Your task to perform on an android device: turn off priority inbox in the gmail app Image 0: 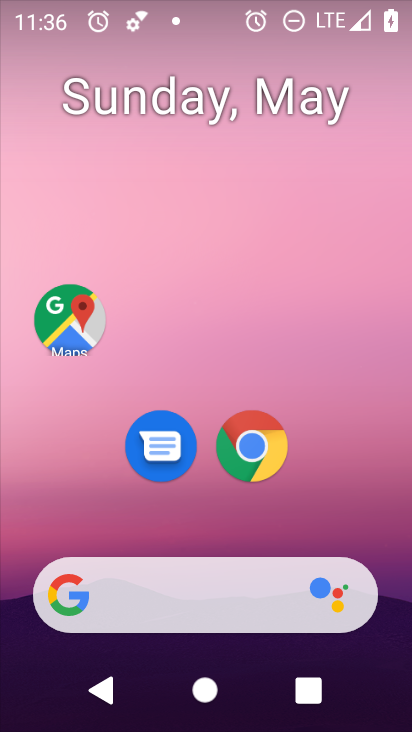
Step 0: drag from (351, 418) to (260, 4)
Your task to perform on an android device: turn off priority inbox in the gmail app Image 1: 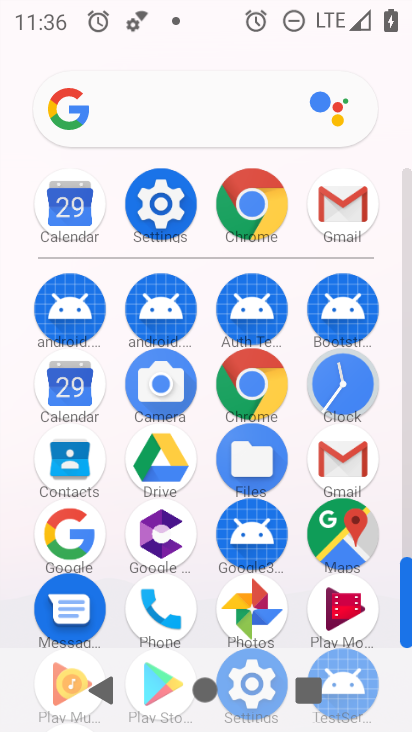
Step 1: drag from (28, 556) to (33, 268)
Your task to perform on an android device: turn off priority inbox in the gmail app Image 2: 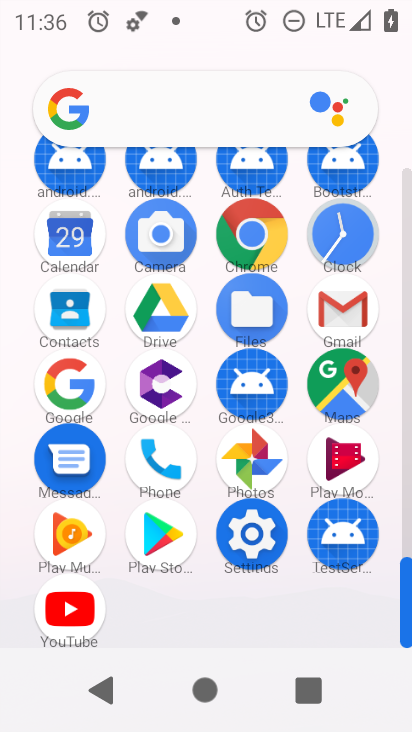
Step 2: click (338, 300)
Your task to perform on an android device: turn off priority inbox in the gmail app Image 3: 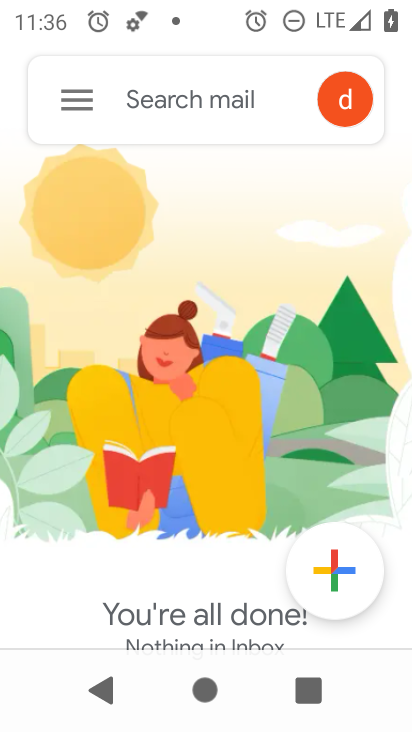
Step 3: click (73, 112)
Your task to perform on an android device: turn off priority inbox in the gmail app Image 4: 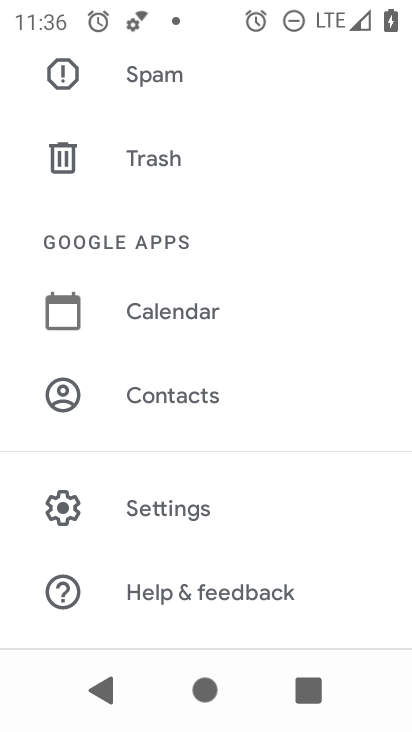
Step 4: drag from (284, 534) to (284, 105)
Your task to perform on an android device: turn off priority inbox in the gmail app Image 5: 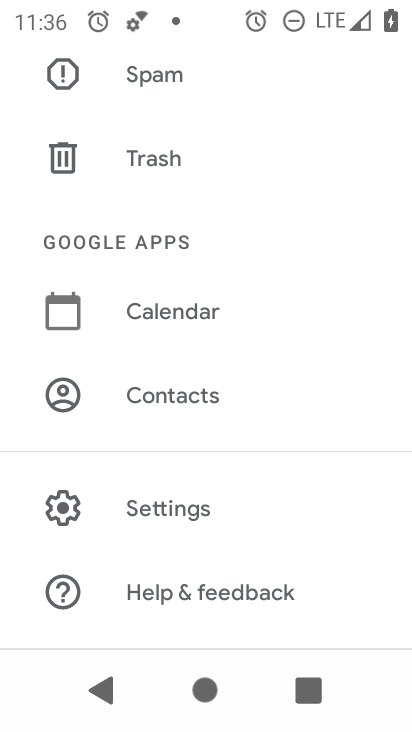
Step 5: click (190, 514)
Your task to perform on an android device: turn off priority inbox in the gmail app Image 6: 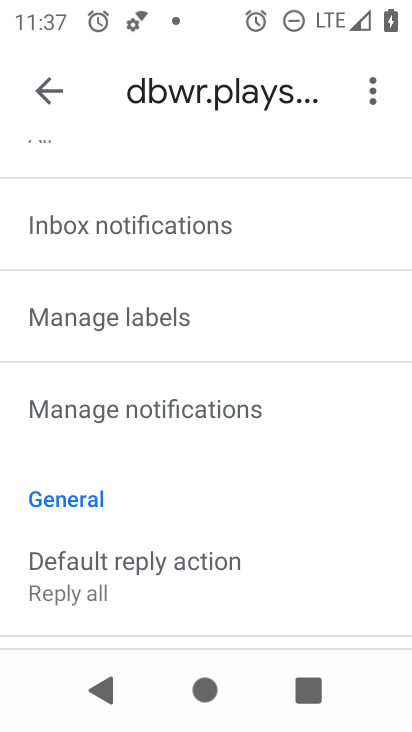
Step 6: drag from (265, 196) to (266, 590)
Your task to perform on an android device: turn off priority inbox in the gmail app Image 7: 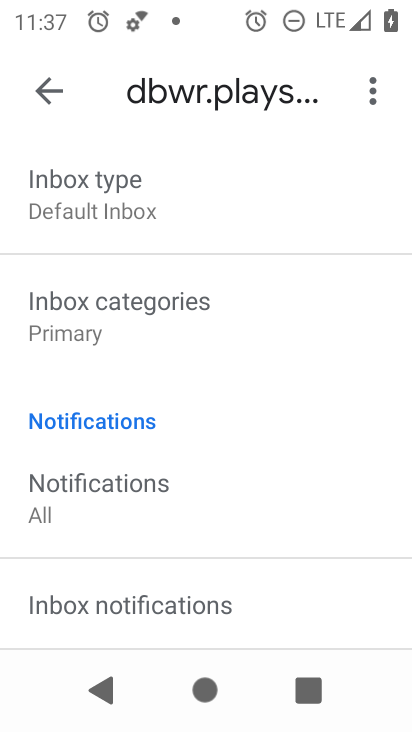
Step 7: click (182, 312)
Your task to perform on an android device: turn off priority inbox in the gmail app Image 8: 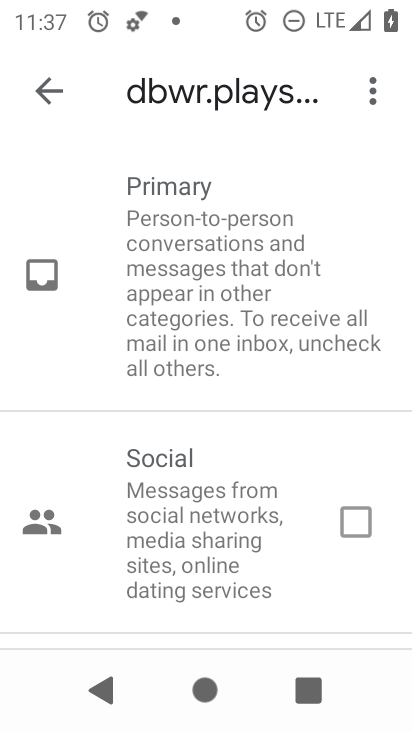
Step 8: click (42, 89)
Your task to perform on an android device: turn off priority inbox in the gmail app Image 9: 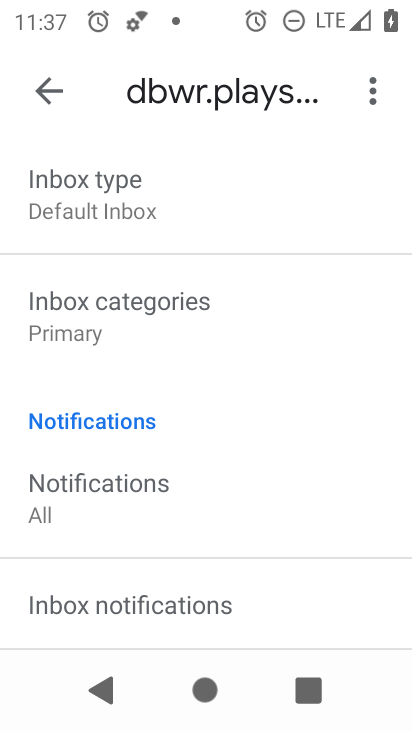
Step 9: click (170, 300)
Your task to perform on an android device: turn off priority inbox in the gmail app Image 10: 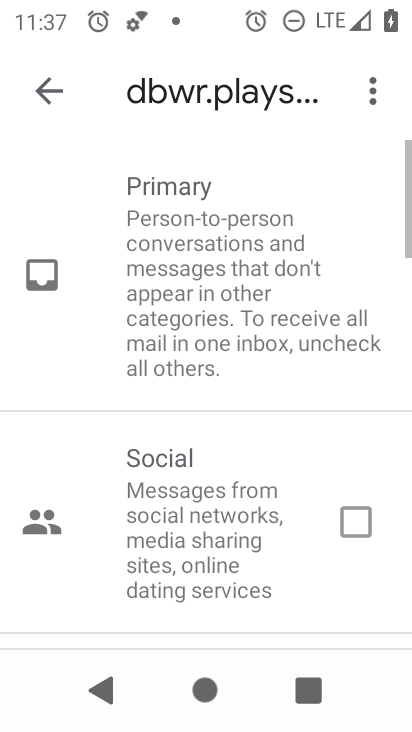
Step 10: drag from (245, 542) to (242, 124)
Your task to perform on an android device: turn off priority inbox in the gmail app Image 11: 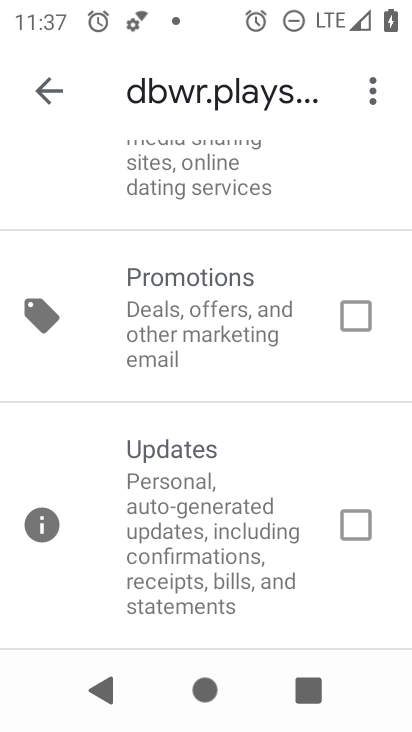
Step 11: drag from (234, 492) to (238, 130)
Your task to perform on an android device: turn off priority inbox in the gmail app Image 12: 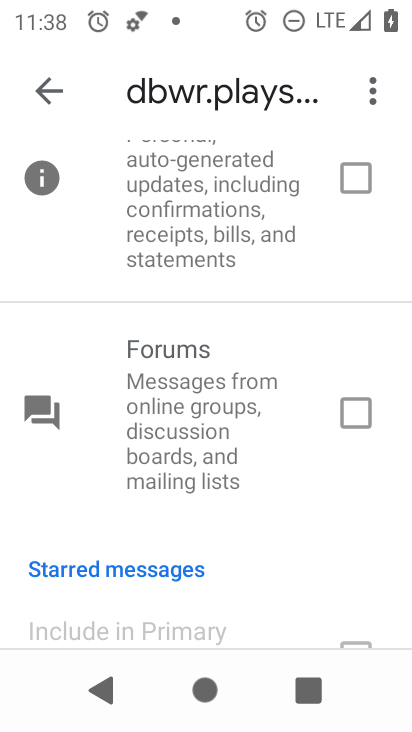
Step 12: drag from (203, 574) to (226, 211)
Your task to perform on an android device: turn off priority inbox in the gmail app Image 13: 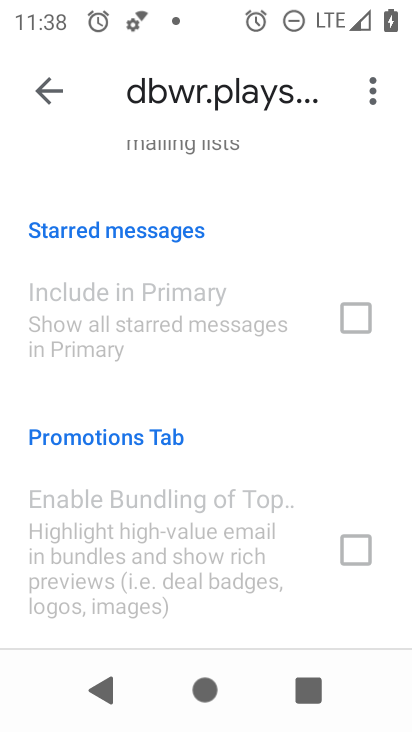
Step 13: drag from (291, 591) to (266, 123)
Your task to perform on an android device: turn off priority inbox in the gmail app Image 14: 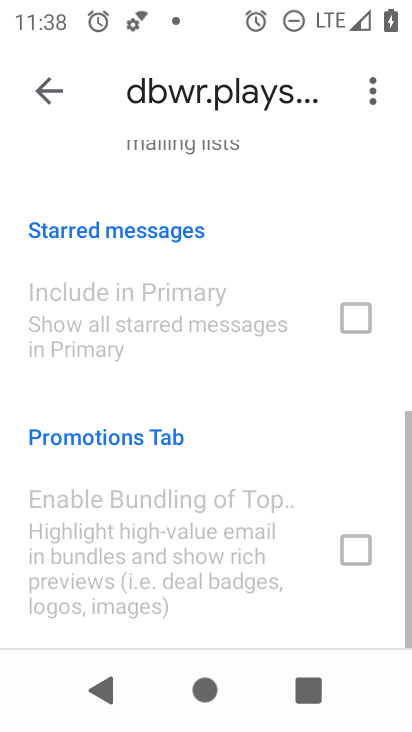
Step 14: drag from (233, 278) to (233, 625)
Your task to perform on an android device: turn off priority inbox in the gmail app Image 15: 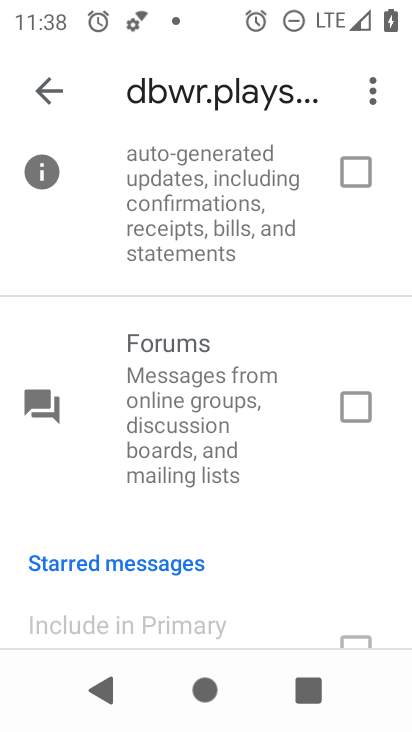
Step 15: drag from (281, 216) to (254, 621)
Your task to perform on an android device: turn off priority inbox in the gmail app Image 16: 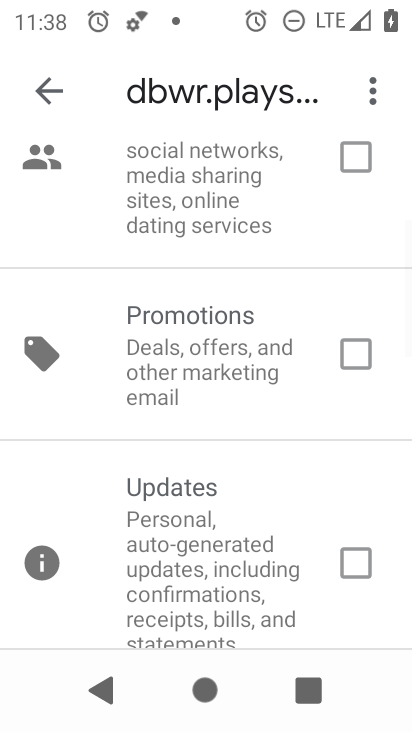
Step 16: drag from (272, 233) to (243, 620)
Your task to perform on an android device: turn off priority inbox in the gmail app Image 17: 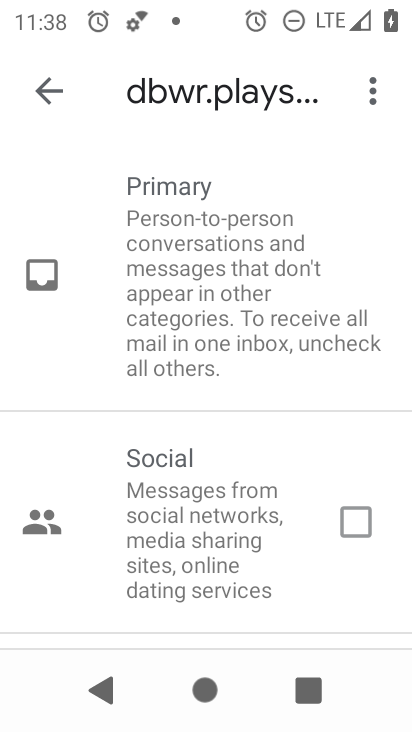
Step 17: drag from (257, 222) to (219, 603)
Your task to perform on an android device: turn off priority inbox in the gmail app Image 18: 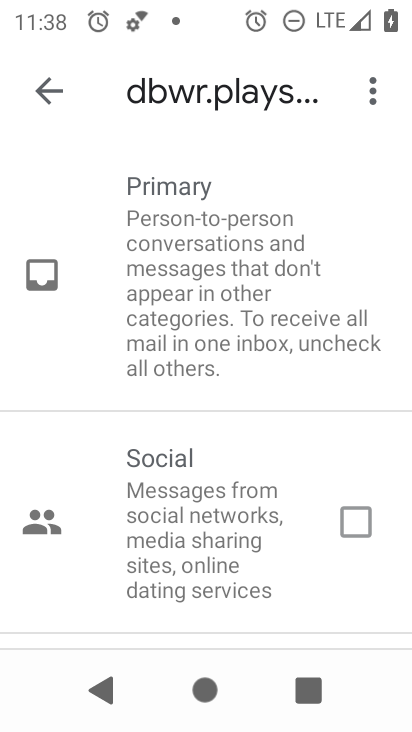
Step 18: drag from (206, 520) to (212, 129)
Your task to perform on an android device: turn off priority inbox in the gmail app Image 19: 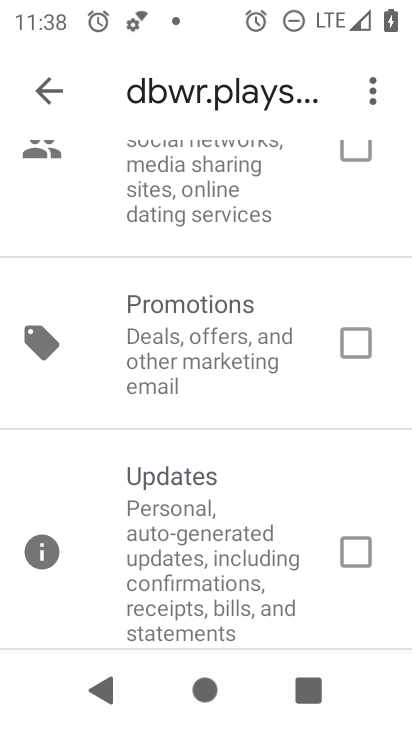
Step 19: drag from (218, 491) to (234, 147)
Your task to perform on an android device: turn off priority inbox in the gmail app Image 20: 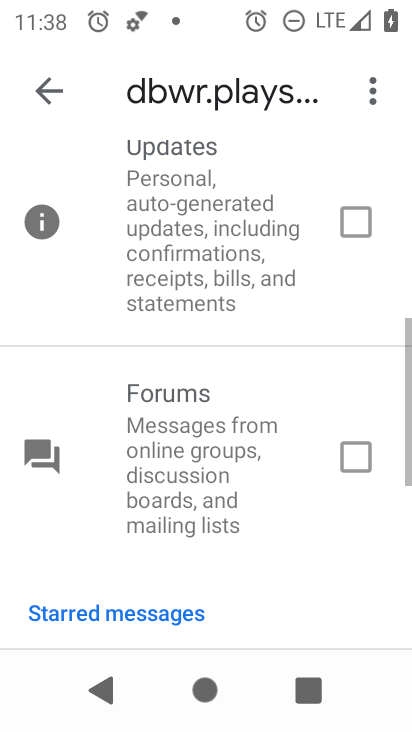
Step 20: drag from (252, 546) to (259, 176)
Your task to perform on an android device: turn off priority inbox in the gmail app Image 21: 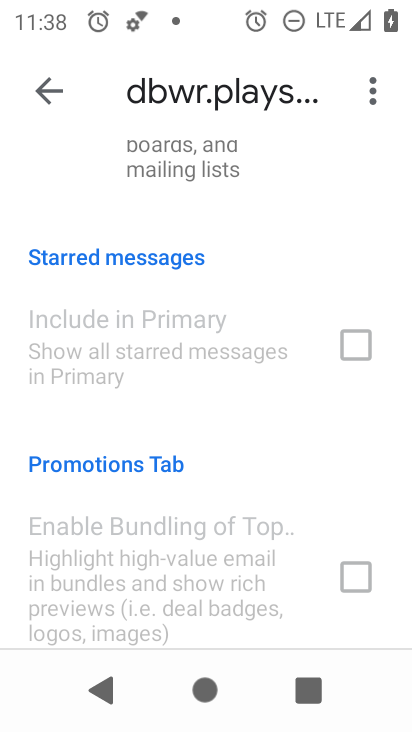
Step 21: drag from (251, 260) to (251, 562)
Your task to perform on an android device: turn off priority inbox in the gmail app Image 22: 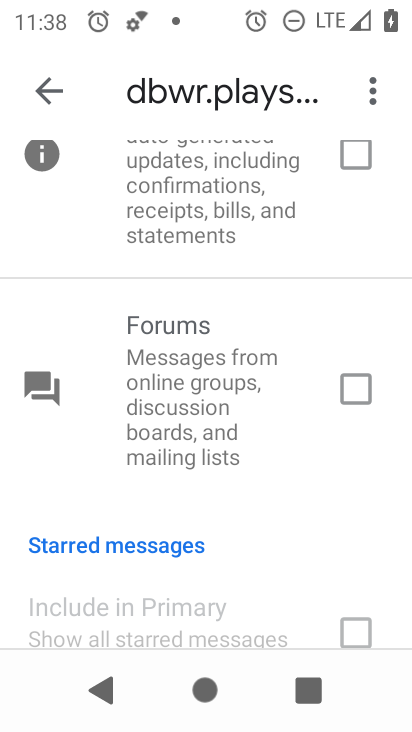
Step 22: drag from (263, 490) to (263, 184)
Your task to perform on an android device: turn off priority inbox in the gmail app Image 23: 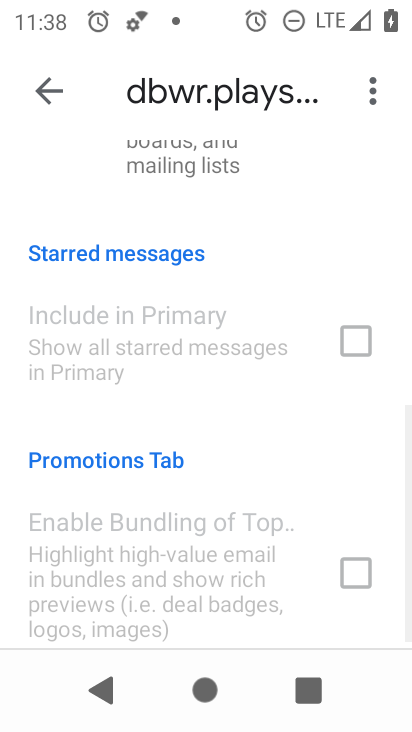
Step 23: drag from (248, 530) to (247, 133)
Your task to perform on an android device: turn off priority inbox in the gmail app Image 24: 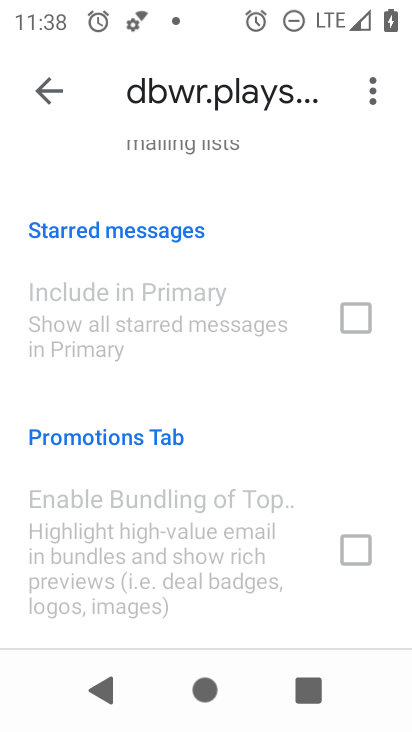
Step 24: drag from (253, 502) to (253, 161)
Your task to perform on an android device: turn off priority inbox in the gmail app Image 25: 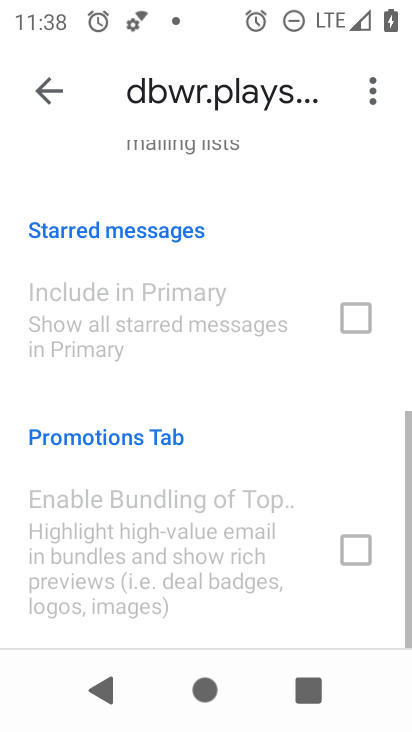
Step 25: drag from (279, 211) to (283, 610)
Your task to perform on an android device: turn off priority inbox in the gmail app Image 26: 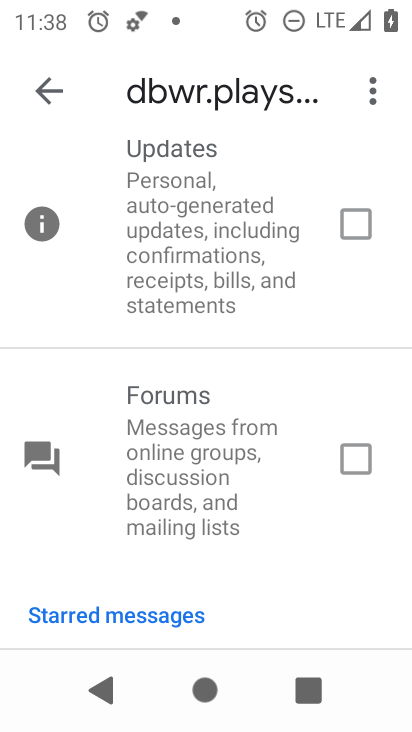
Step 26: drag from (269, 271) to (258, 568)
Your task to perform on an android device: turn off priority inbox in the gmail app Image 27: 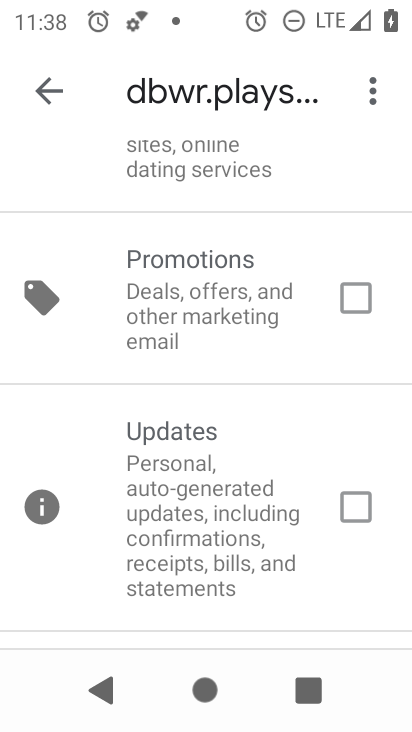
Step 27: drag from (266, 258) to (248, 623)
Your task to perform on an android device: turn off priority inbox in the gmail app Image 28: 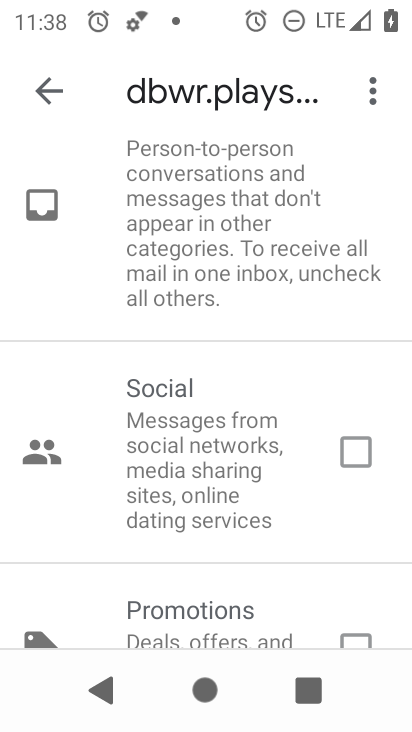
Step 28: drag from (254, 264) to (226, 575)
Your task to perform on an android device: turn off priority inbox in the gmail app Image 29: 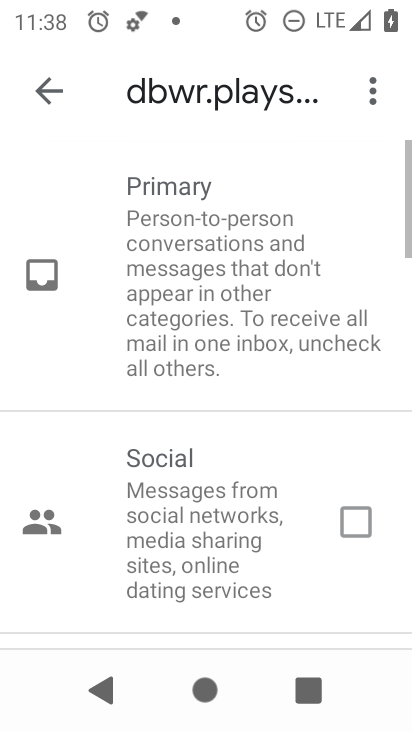
Step 29: drag from (230, 410) to (244, 165)
Your task to perform on an android device: turn off priority inbox in the gmail app Image 30: 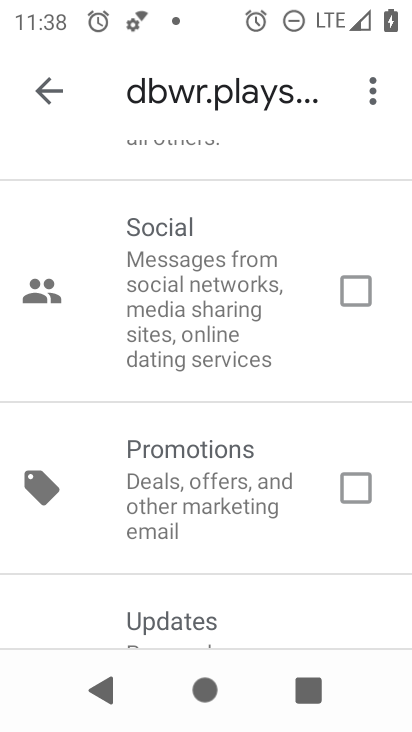
Step 30: drag from (158, 466) to (207, 206)
Your task to perform on an android device: turn off priority inbox in the gmail app Image 31: 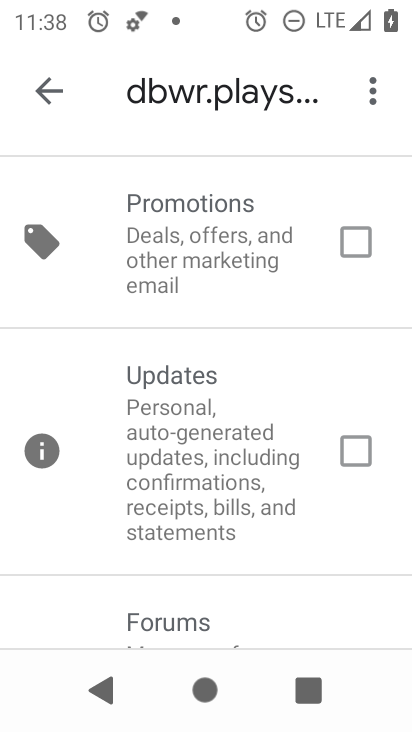
Step 31: drag from (230, 489) to (243, 166)
Your task to perform on an android device: turn off priority inbox in the gmail app Image 32: 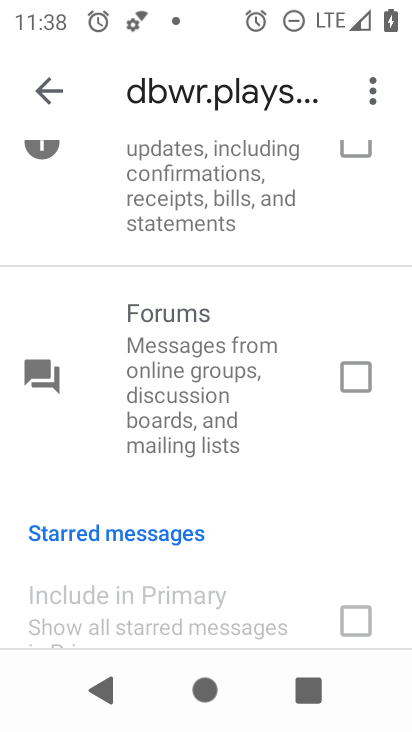
Step 32: drag from (282, 516) to (270, 149)
Your task to perform on an android device: turn off priority inbox in the gmail app Image 33: 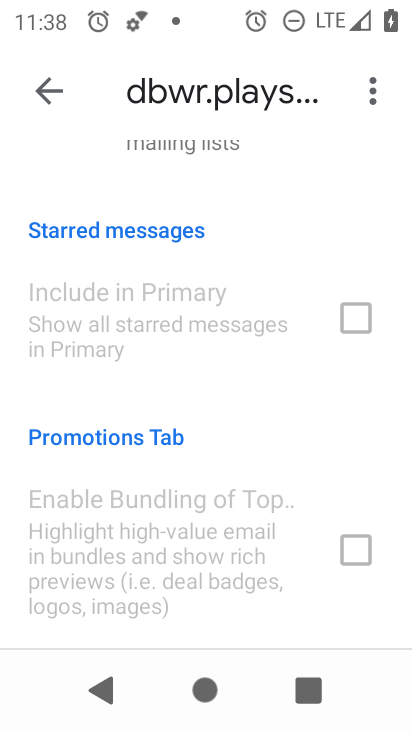
Step 33: drag from (251, 498) to (277, 256)
Your task to perform on an android device: turn off priority inbox in the gmail app Image 34: 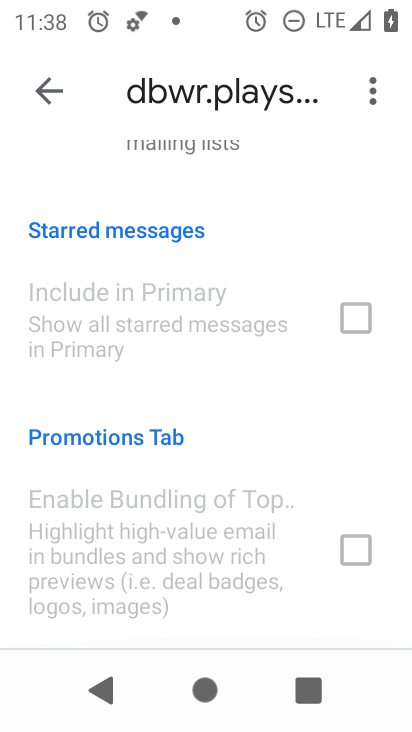
Step 34: drag from (289, 184) to (286, 586)
Your task to perform on an android device: turn off priority inbox in the gmail app Image 35: 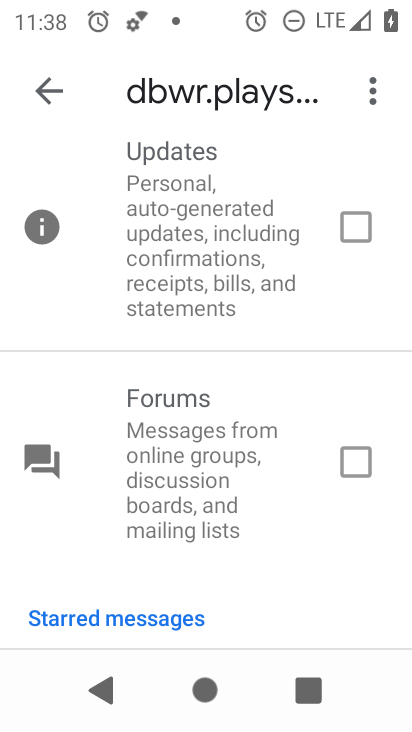
Step 35: drag from (284, 193) to (284, 430)
Your task to perform on an android device: turn off priority inbox in the gmail app Image 36: 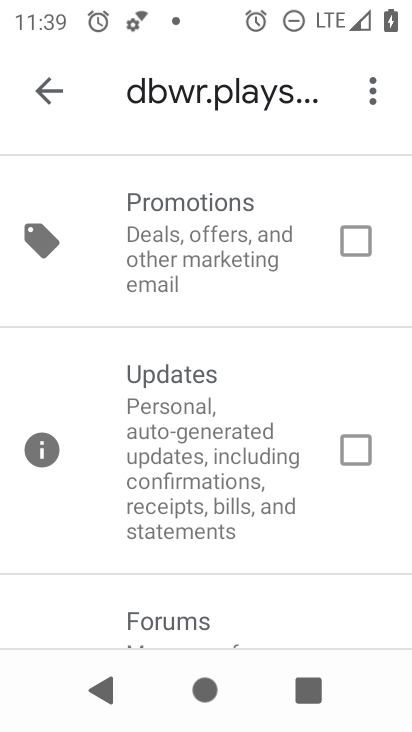
Step 36: drag from (282, 596) to (274, 189)
Your task to perform on an android device: turn off priority inbox in the gmail app Image 37: 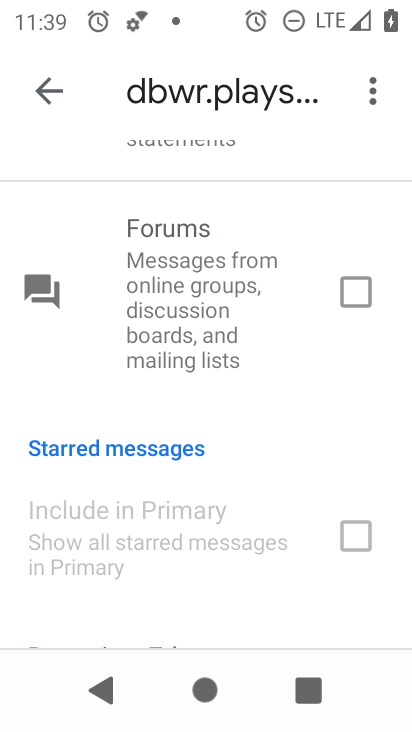
Step 37: drag from (284, 175) to (260, 555)
Your task to perform on an android device: turn off priority inbox in the gmail app Image 38: 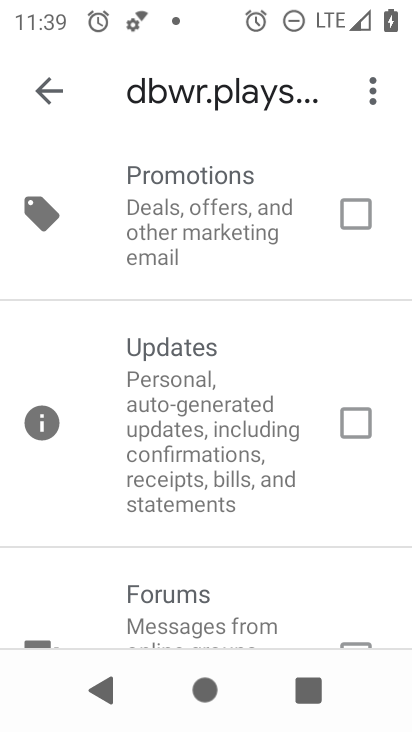
Step 38: drag from (283, 551) to (285, 247)
Your task to perform on an android device: turn off priority inbox in the gmail app Image 39: 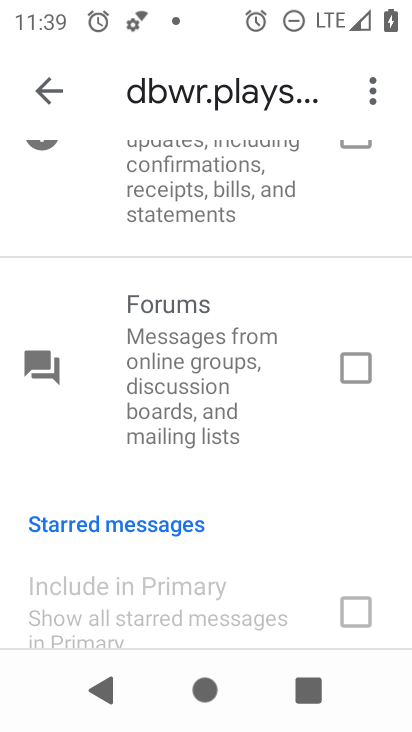
Step 39: drag from (291, 235) to (289, 602)
Your task to perform on an android device: turn off priority inbox in the gmail app Image 40: 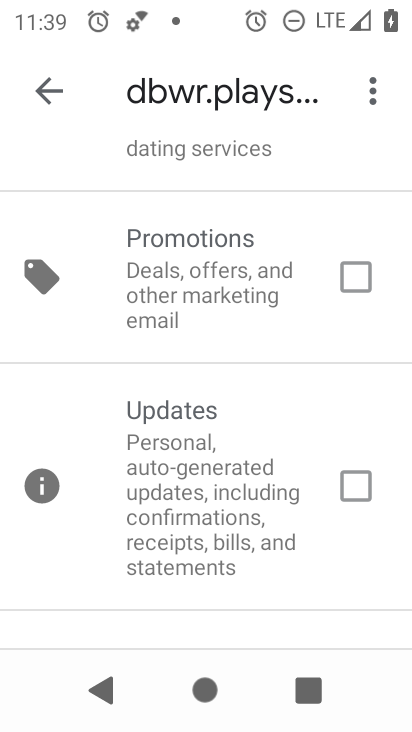
Step 40: drag from (298, 185) to (285, 568)
Your task to perform on an android device: turn off priority inbox in the gmail app Image 41: 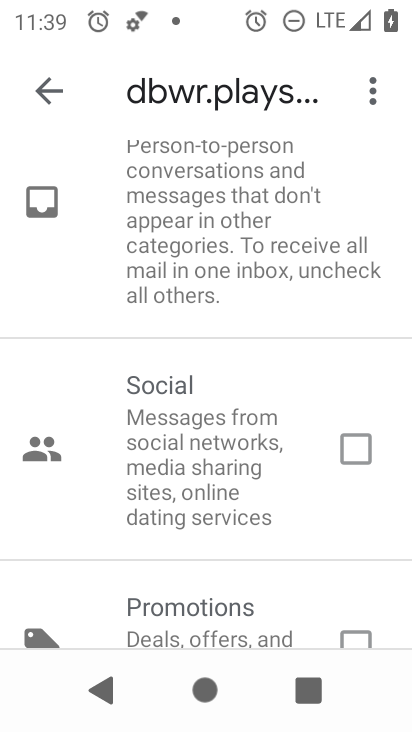
Step 41: drag from (282, 283) to (282, 640)
Your task to perform on an android device: turn off priority inbox in the gmail app Image 42: 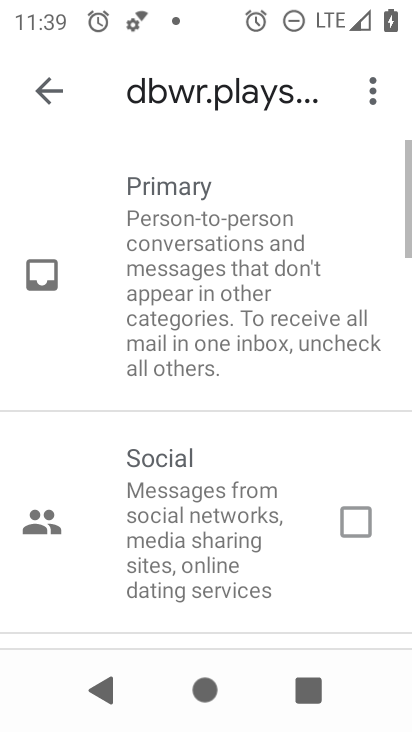
Step 42: drag from (260, 522) to (264, 103)
Your task to perform on an android device: turn off priority inbox in the gmail app Image 43: 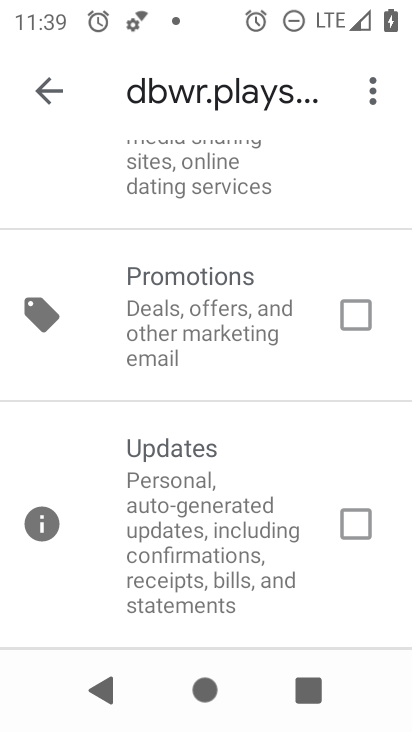
Step 43: drag from (264, 557) to (265, 122)
Your task to perform on an android device: turn off priority inbox in the gmail app Image 44: 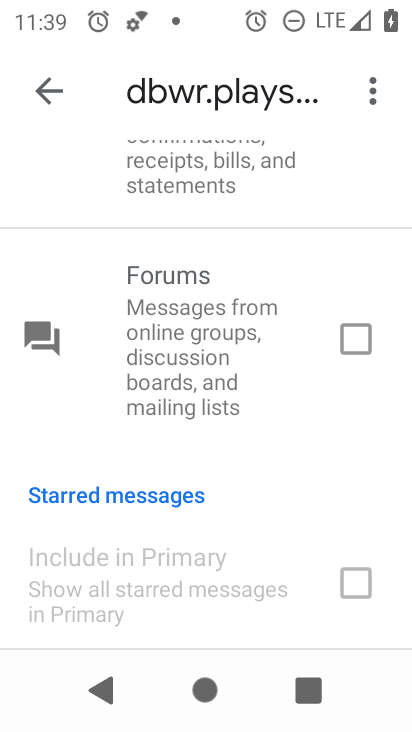
Step 44: drag from (230, 551) to (234, 135)
Your task to perform on an android device: turn off priority inbox in the gmail app Image 45: 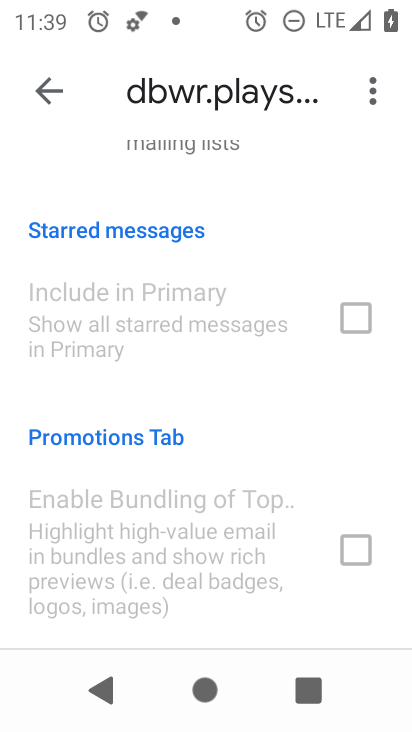
Step 45: click (48, 83)
Your task to perform on an android device: turn off priority inbox in the gmail app Image 46: 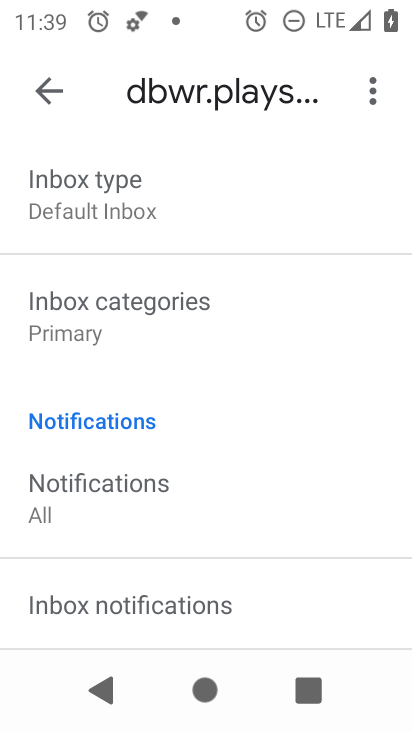
Step 46: drag from (289, 503) to (282, 195)
Your task to perform on an android device: turn off priority inbox in the gmail app Image 47: 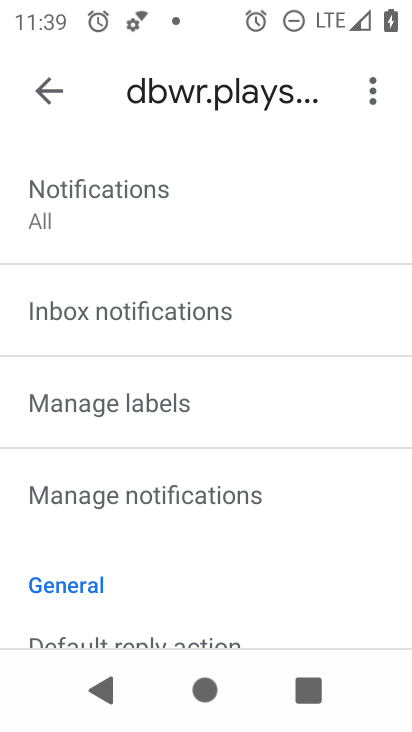
Step 47: click (204, 492)
Your task to perform on an android device: turn off priority inbox in the gmail app Image 48: 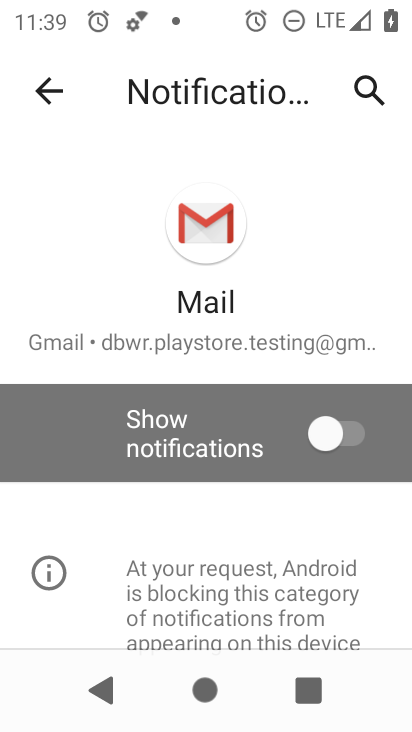
Step 48: click (57, 74)
Your task to perform on an android device: turn off priority inbox in the gmail app Image 49: 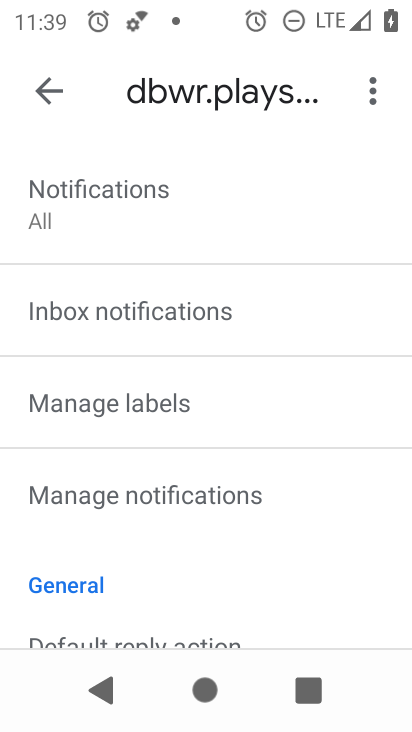
Step 49: drag from (160, 253) to (211, 677)
Your task to perform on an android device: turn off priority inbox in the gmail app Image 50: 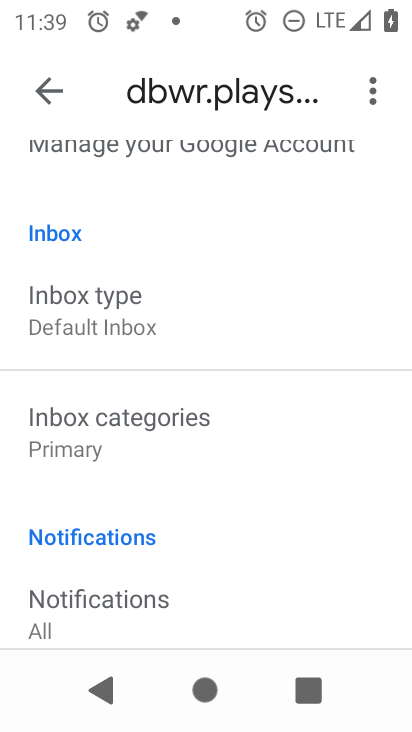
Step 50: drag from (240, 269) to (244, 569)
Your task to perform on an android device: turn off priority inbox in the gmail app Image 51: 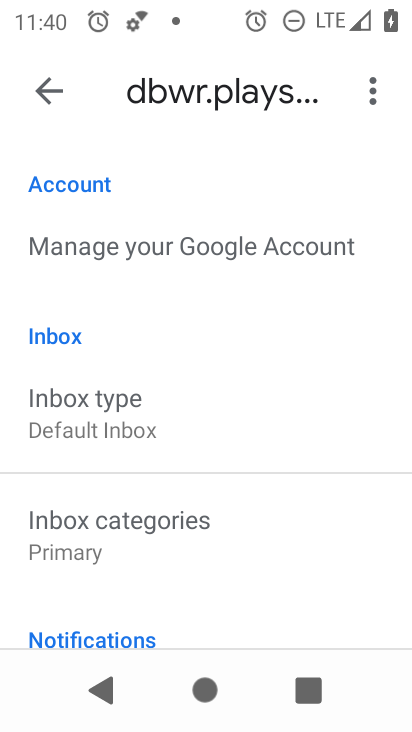
Step 51: click (177, 407)
Your task to perform on an android device: turn off priority inbox in the gmail app Image 52: 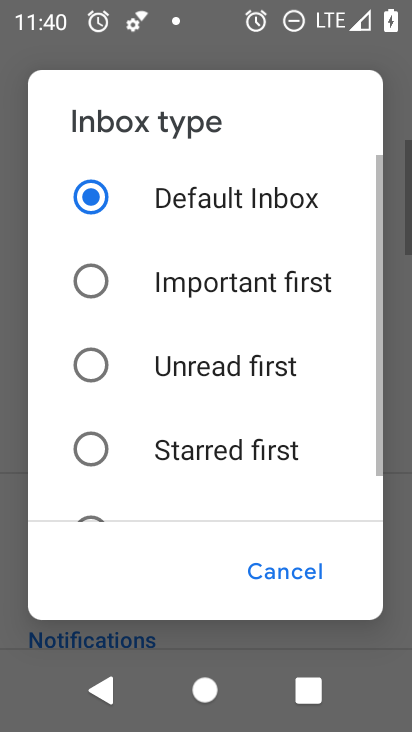
Step 52: click (233, 185)
Your task to perform on an android device: turn off priority inbox in the gmail app Image 53: 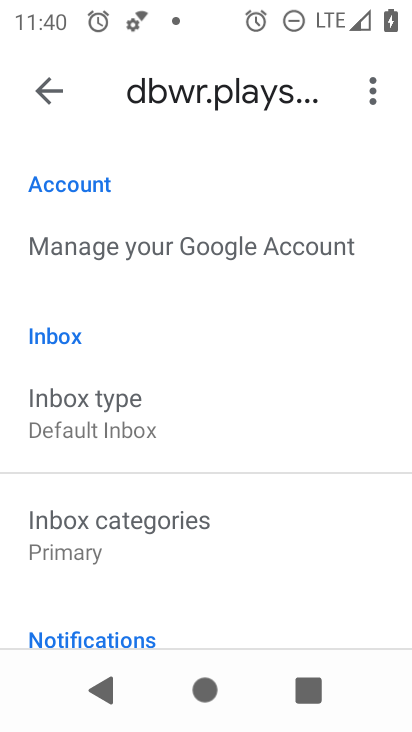
Step 53: task complete